Your task to perform on an android device: Open my contact list Image 0: 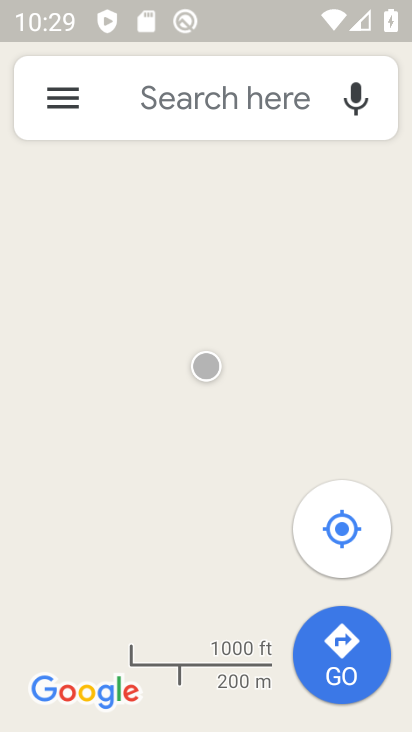
Step 0: press home button
Your task to perform on an android device: Open my contact list Image 1: 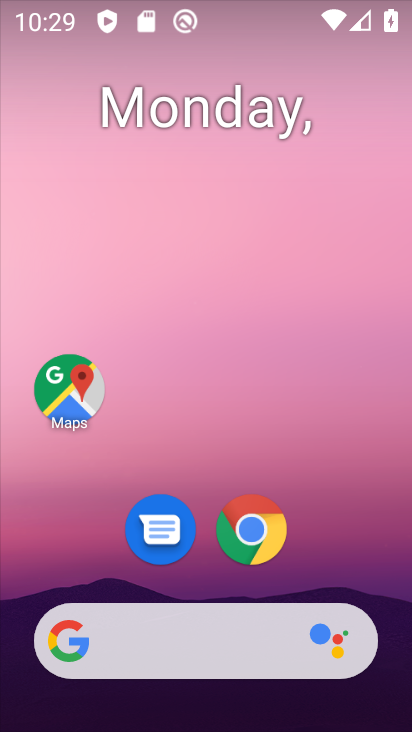
Step 1: drag from (226, 724) to (222, 55)
Your task to perform on an android device: Open my contact list Image 2: 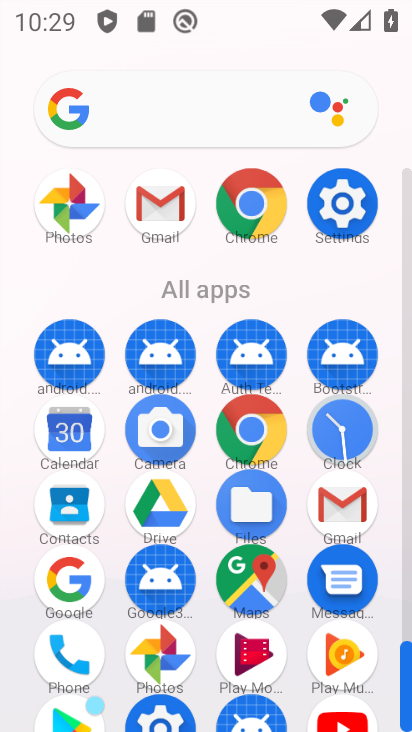
Step 2: click (63, 507)
Your task to perform on an android device: Open my contact list Image 3: 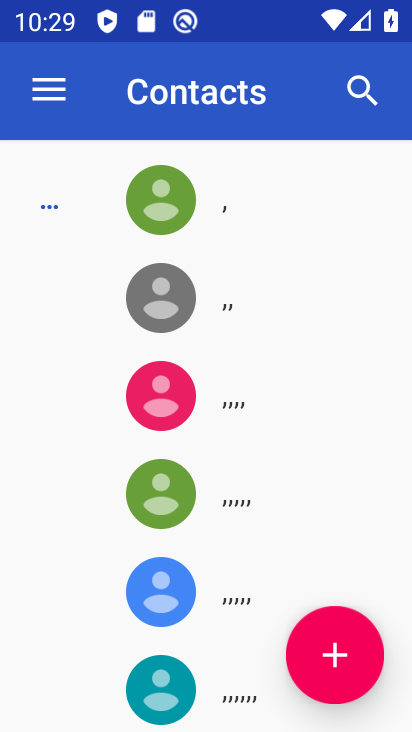
Step 3: task complete